Your task to perform on an android device: make emails show in primary in the gmail app Image 0: 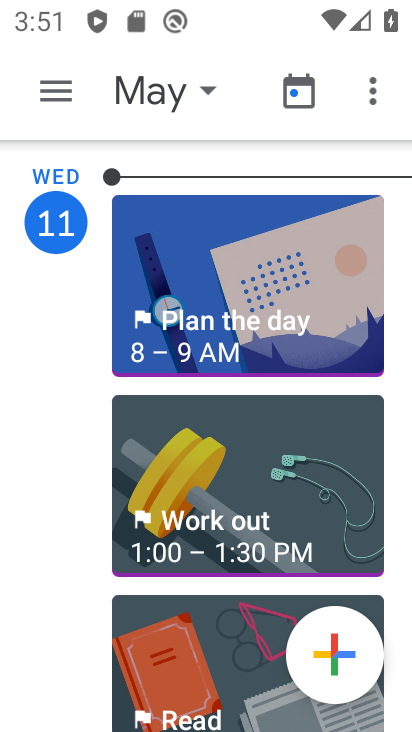
Step 0: press home button
Your task to perform on an android device: make emails show in primary in the gmail app Image 1: 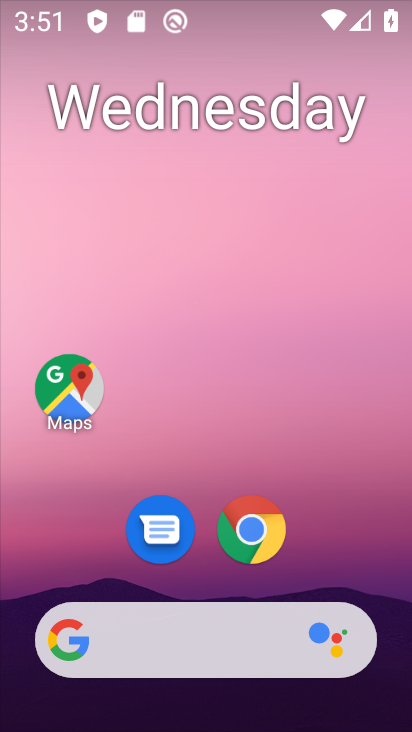
Step 1: drag from (335, 554) to (360, 76)
Your task to perform on an android device: make emails show in primary in the gmail app Image 2: 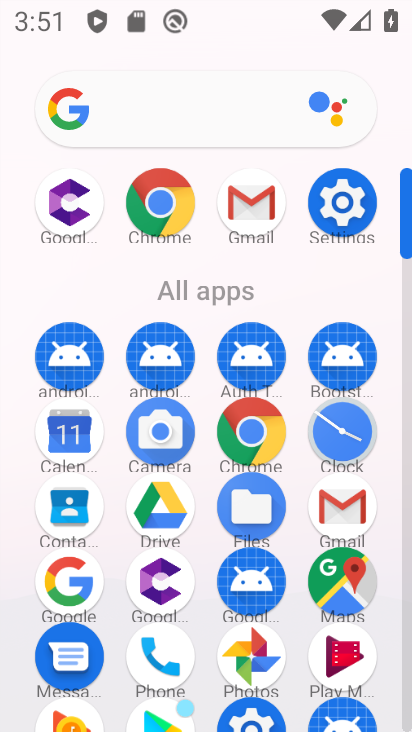
Step 2: click (266, 218)
Your task to perform on an android device: make emails show in primary in the gmail app Image 3: 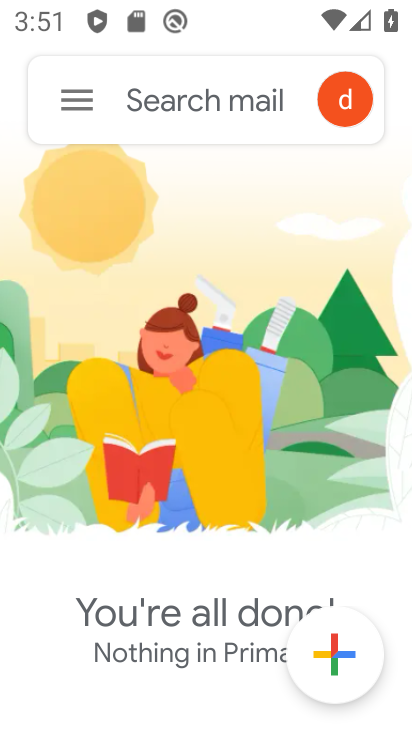
Step 3: click (71, 97)
Your task to perform on an android device: make emails show in primary in the gmail app Image 4: 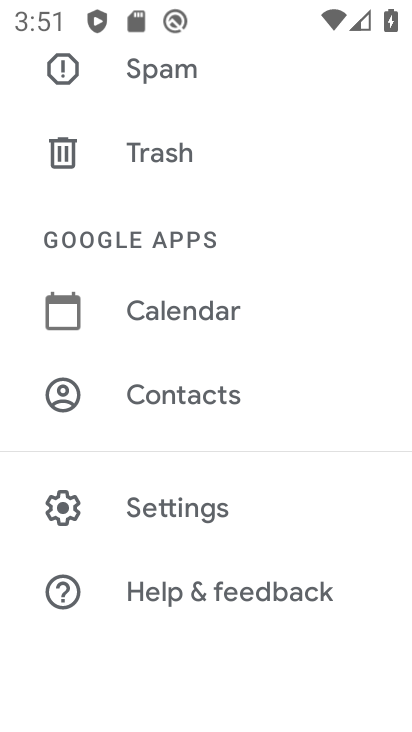
Step 4: drag from (144, 161) to (200, 678)
Your task to perform on an android device: make emails show in primary in the gmail app Image 5: 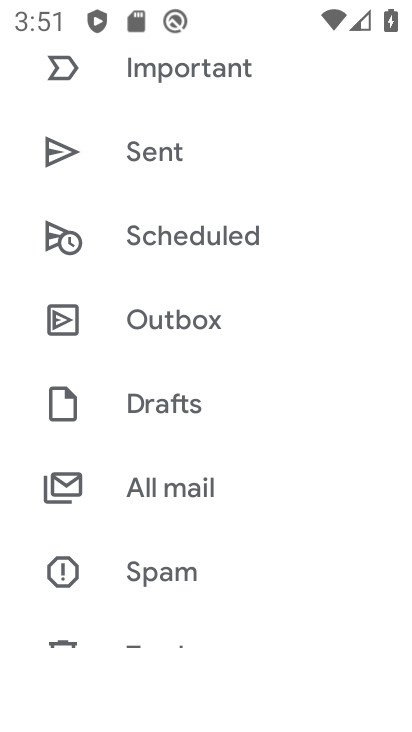
Step 5: drag from (250, 283) to (276, 661)
Your task to perform on an android device: make emails show in primary in the gmail app Image 6: 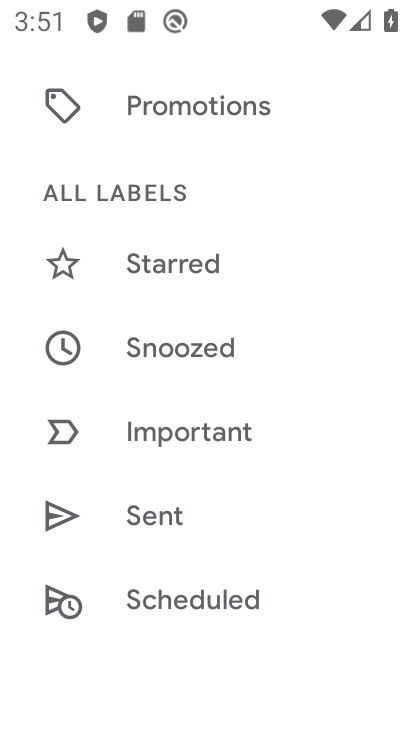
Step 6: drag from (235, 326) to (216, 599)
Your task to perform on an android device: make emails show in primary in the gmail app Image 7: 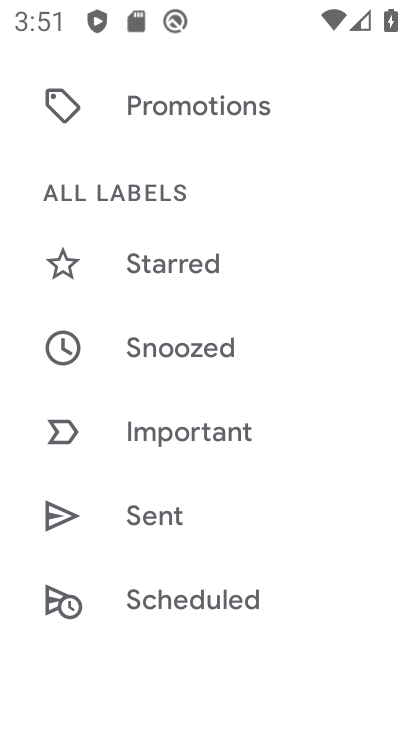
Step 7: drag from (231, 223) to (241, 544)
Your task to perform on an android device: make emails show in primary in the gmail app Image 8: 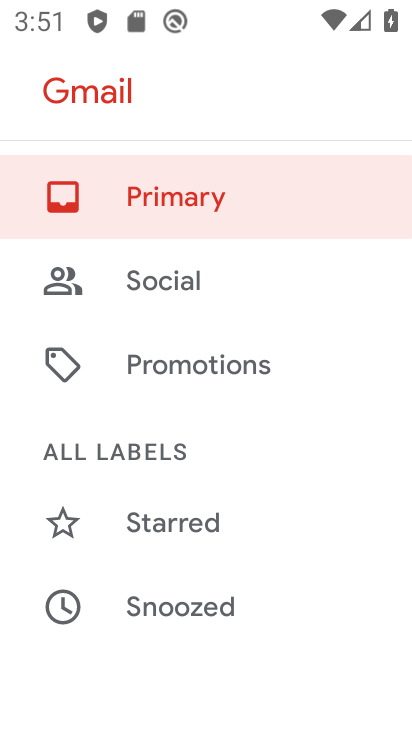
Step 8: click (205, 213)
Your task to perform on an android device: make emails show in primary in the gmail app Image 9: 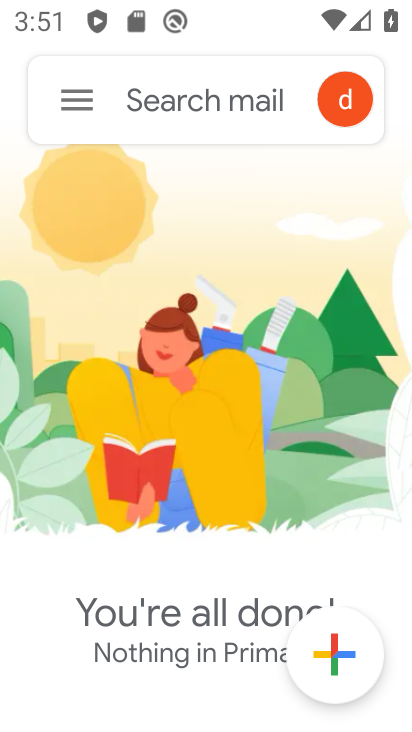
Step 9: task complete